Your task to perform on an android device: Go to network settings Image 0: 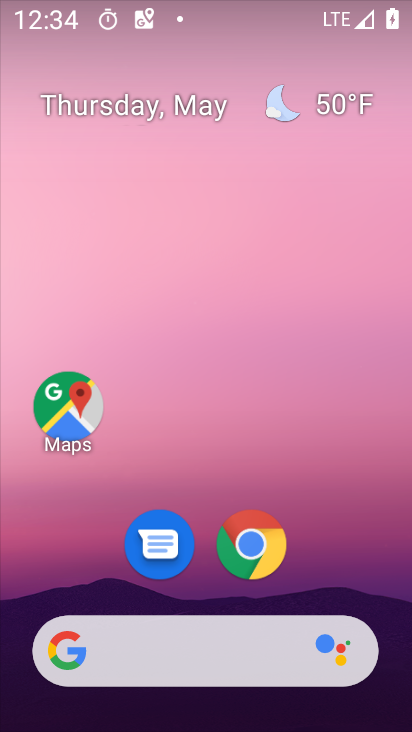
Step 0: drag from (201, 632) to (157, 85)
Your task to perform on an android device: Go to network settings Image 1: 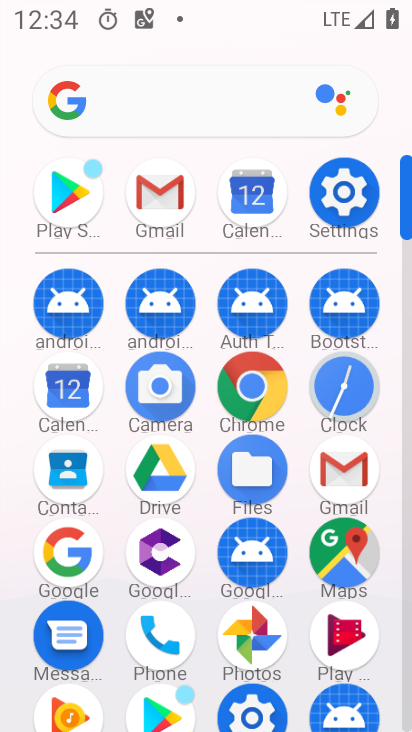
Step 1: click (349, 197)
Your task to perform on an android device: Go to network settings Image 2: 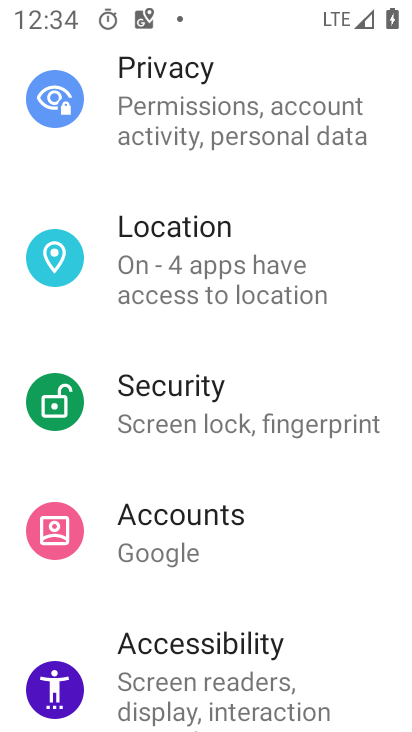
Step 2: drag from (195, 193) to (117, 725)
Your task to perform on an android device: Go to network settings Image 3: 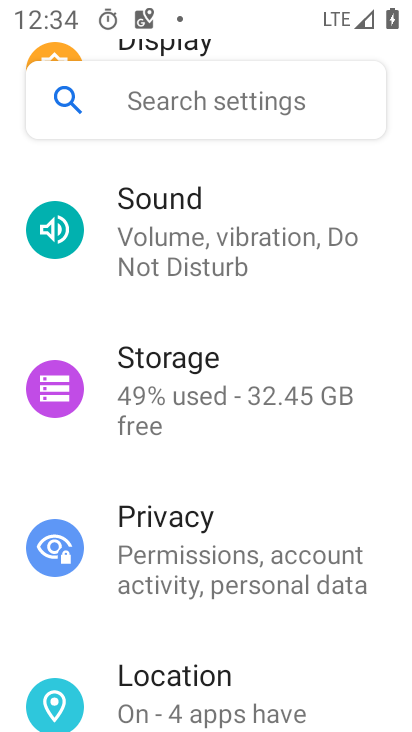
Step 3: drag from (207, 382) to (106, 676)
Your task to perform on an android device: Go to network settings Image 4: 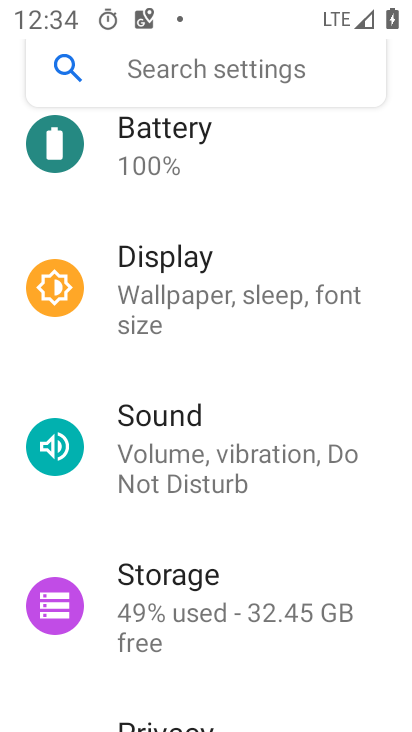
Step 4: drag from (193, 231) to (215, 661)
Your task to perform on an android device: Go to network settings Image 5: 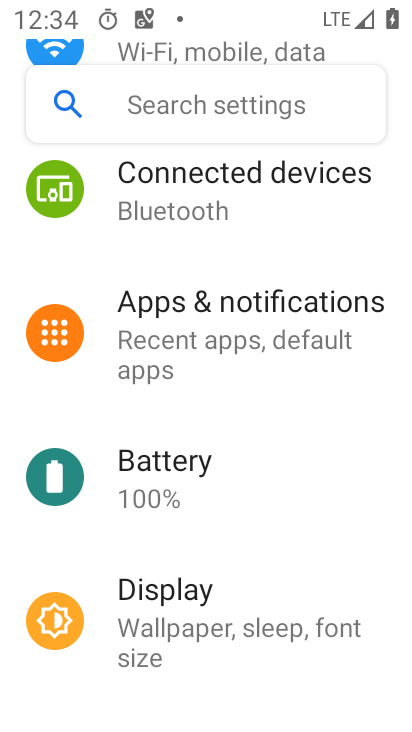
Step 5: drag from (200, 211) to (216, 365)
Your task to perform on an android device: Go to network settings Image 6: 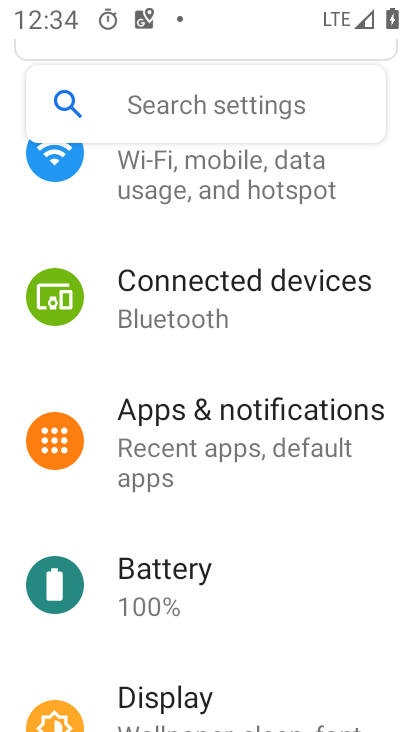
Step 6: click (200, 180)
Your task to perform on an android device: Go to network settings Image 7: 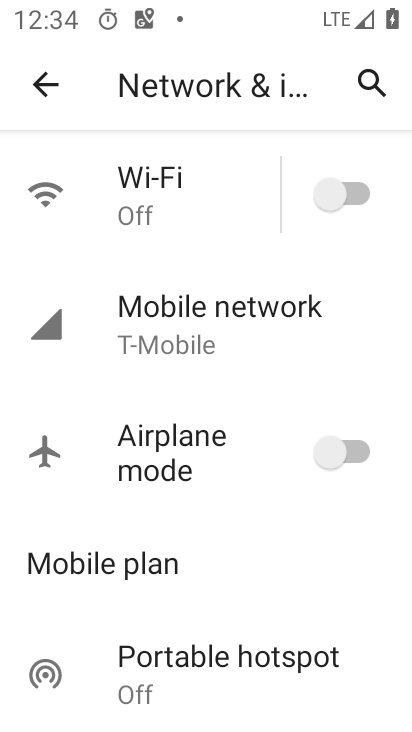
Step 7: task complete